Your task to perform on an android device: check google app version Image 0: 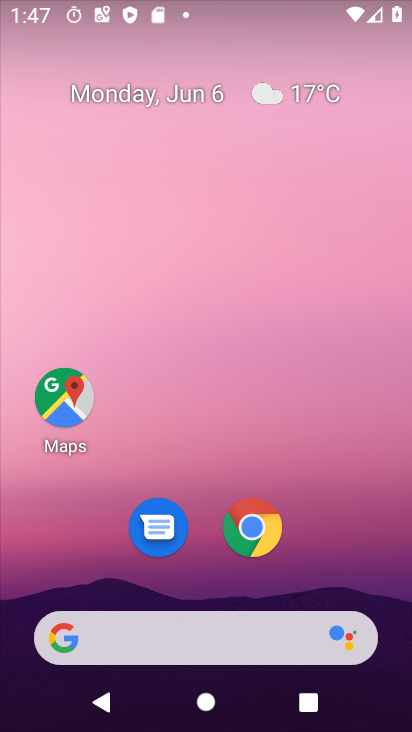
Step 0: drag from (239, 718) to (222, 52)
Your task to perform on an android device: check google app version Image 1: 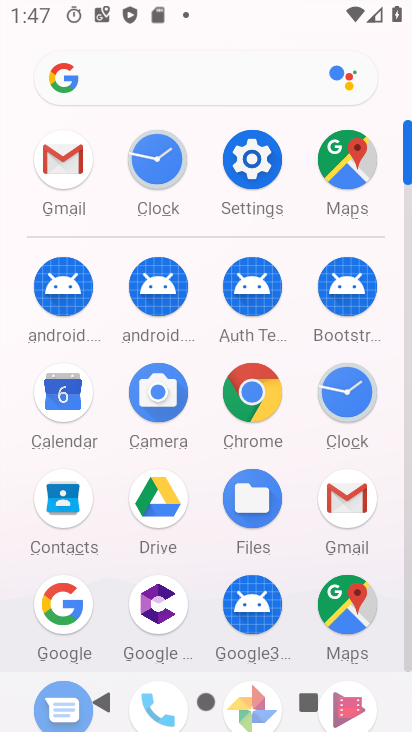
Step 1: click (63, 590)
Your task to perform on an android device: check google app version Image 2: 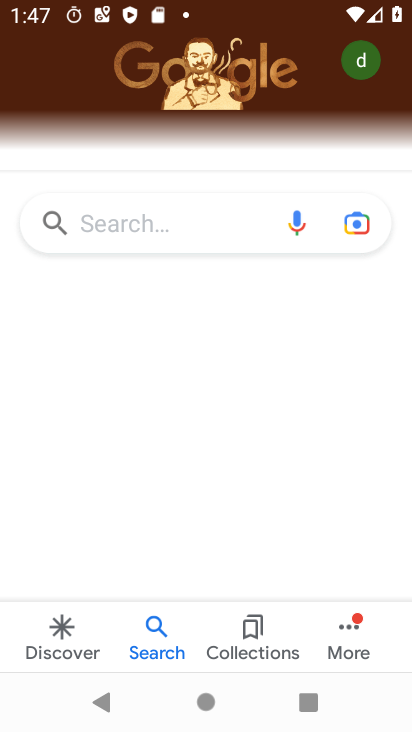
Step 2: click (351, 625)
Your task to perform on an android device: check google app version Image 3: 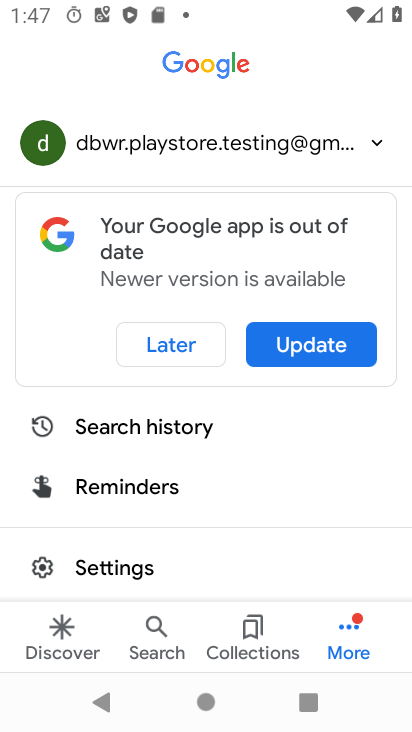
Step 3: click (121, 563)
Your task to perform on an android device: check google app version Image 4: 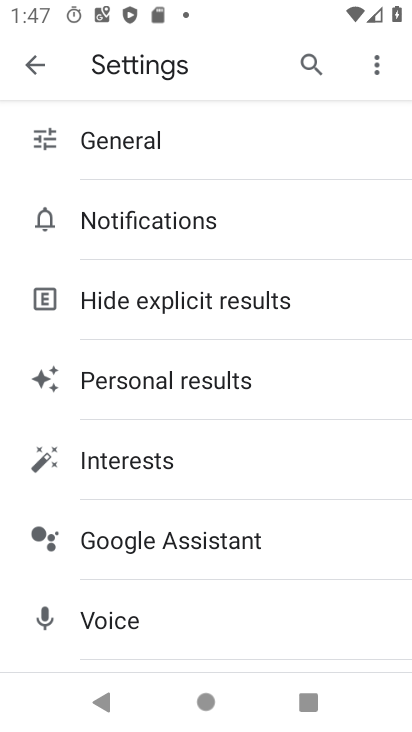
Step 4: drag from (107, 599) to (116, 244)
Your task to perform on an android device: check google app version Image 5: 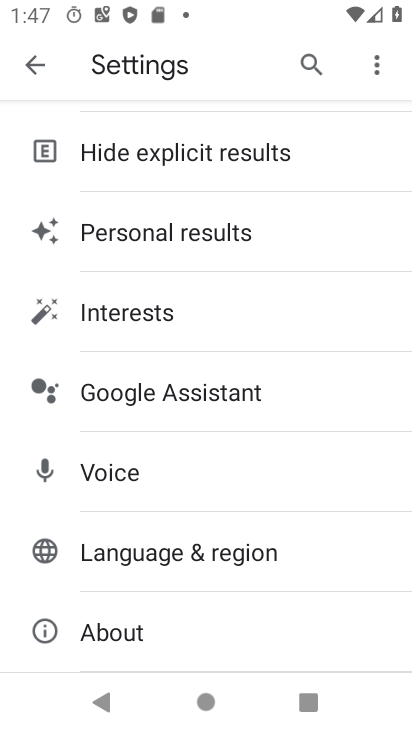
Step 5: click (112, 626)
Your task to perform on an android device: check google app version Image 6: 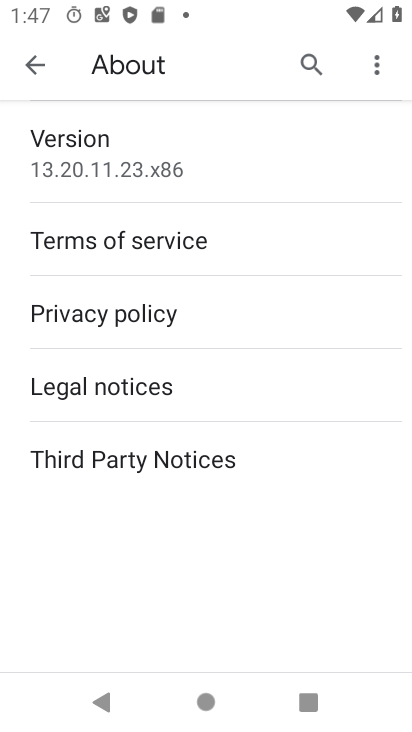
Step 6: task complete